Your task to perform on an android device: Open Wikipedia Image 0: 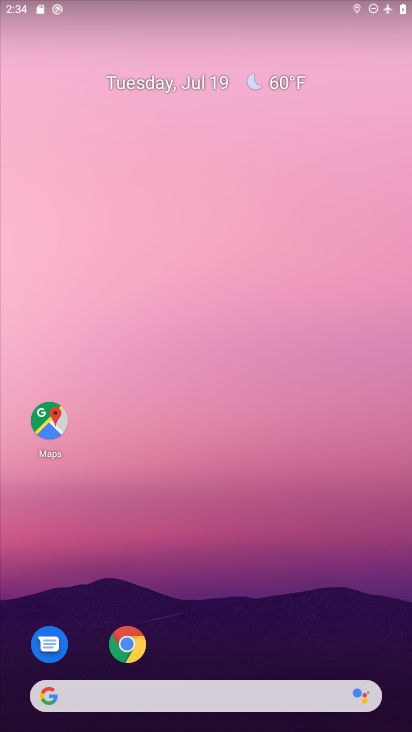
Step 0: click (139, 650)
Your task to perform on an android device: Open Wikipedia Image 1: 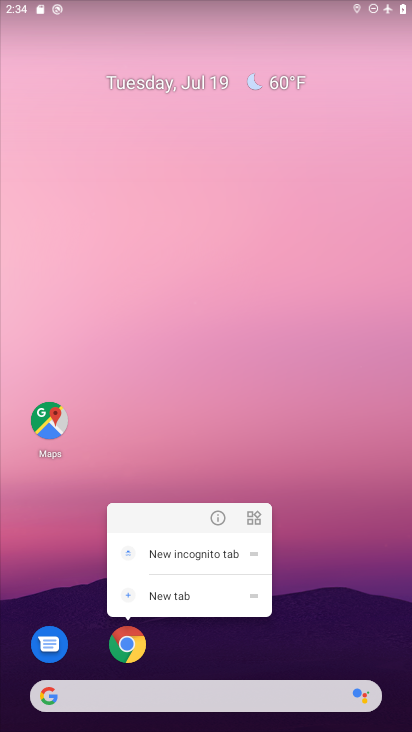
Step 1: click (139, 648)
Your task to perform on an android device: Open Wikipedia Image 2: 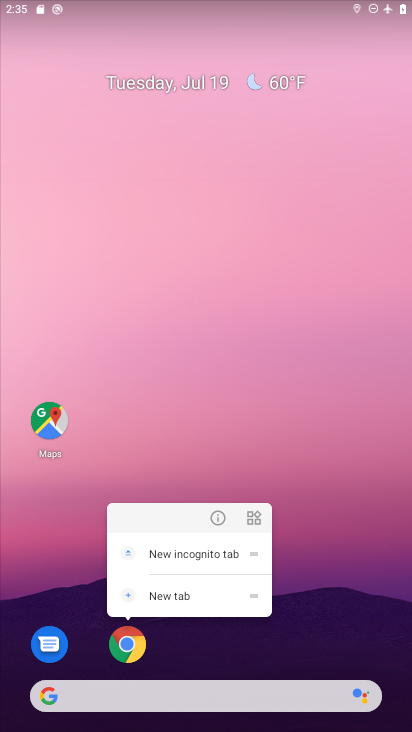
Step 2: click (136, 637)
Your task to perform on an android device: Open Wikipedia Image 3: 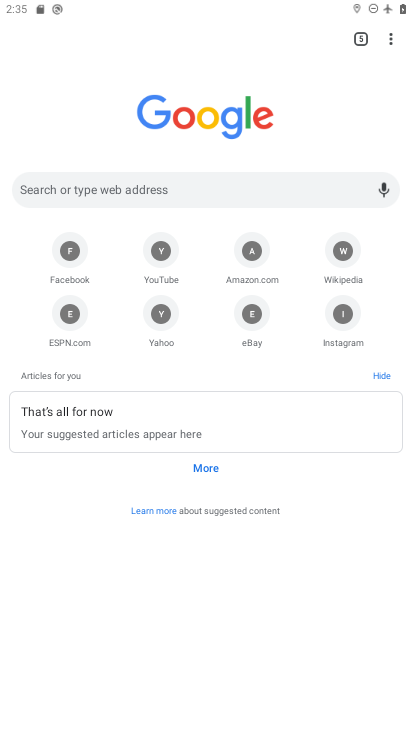
Step 3: click (337, 252)
Your task to perform on an android device: Open Wikipedia Image 4: 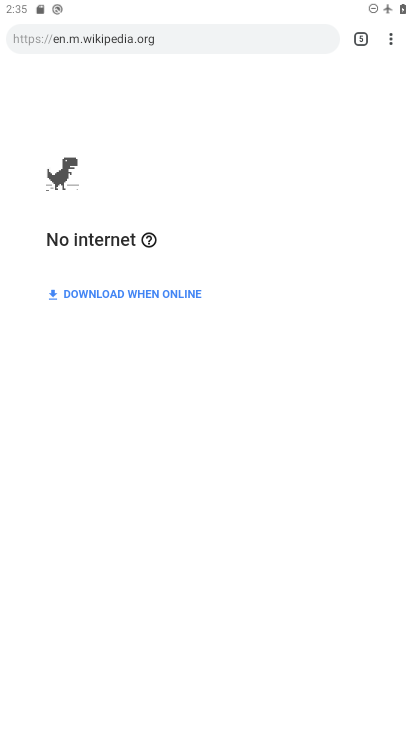
Step 4: task complete